Your task to perform on an android device: Open settings Image 0: 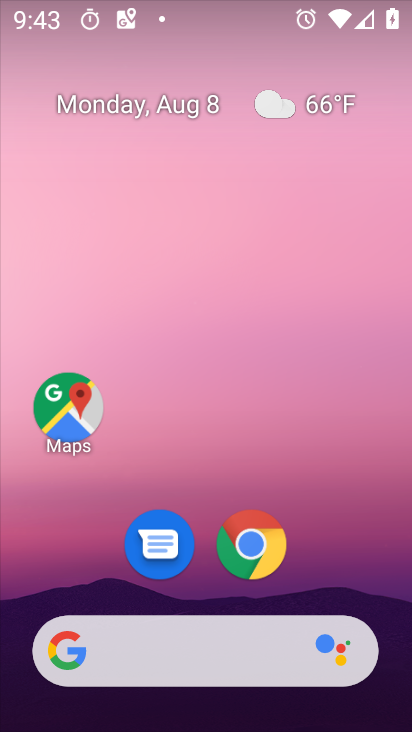
Step 0: press home button
Your task to perform on an android device: Open settings Image 1: 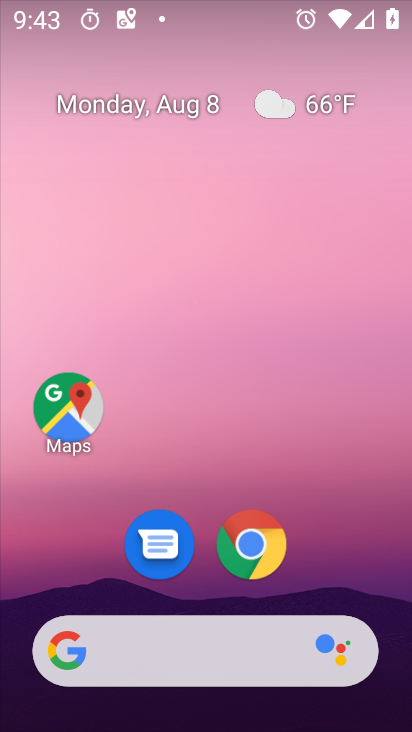
Step 1: drag from (207, 589) to (226, 51)
Your task to perform on an android device: Open settings Image 2: 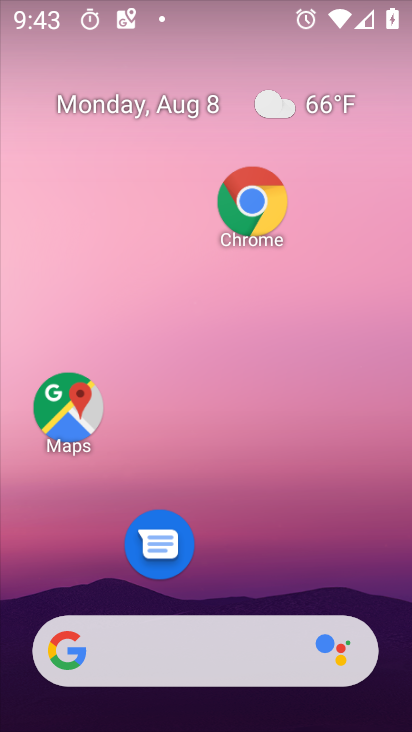
Step 2: drag from (323, 577) to (336, 87)
Your task to perform on an android device: Open settings Image 3: 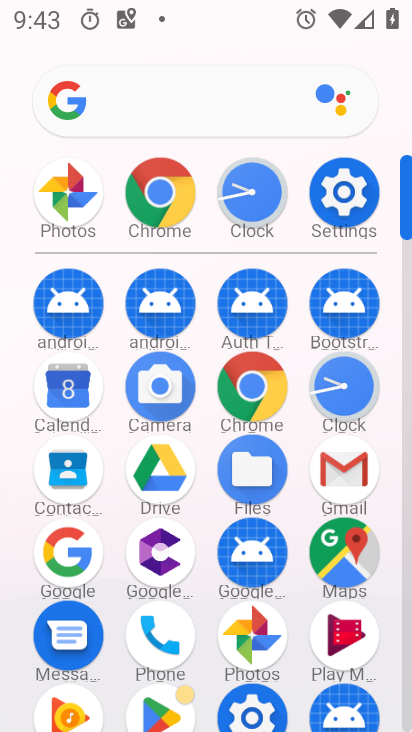
Step 3: click (339, 183)
Your task to perform on an android device: Open settings Image 4: 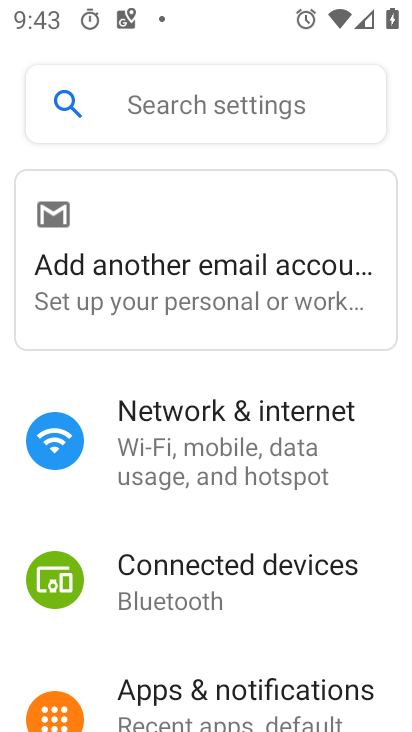
Step 4: task complete